Your task to perform on an android device: remove spam from my inbox in the gmail app Image 0: 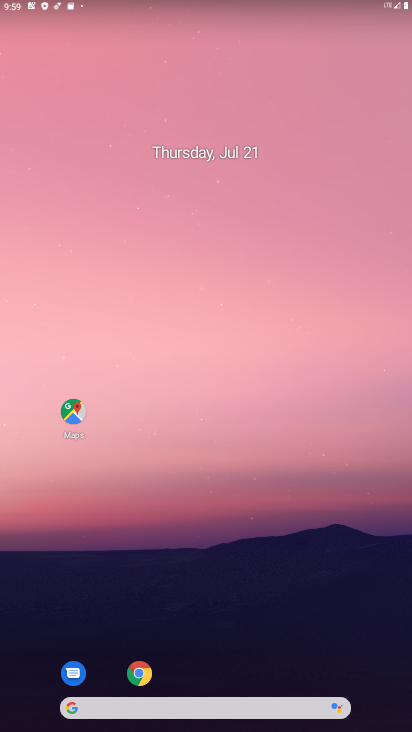
Step 0: drag from (209, 658) to (218, 209)
Your task to perform on an android device: remove spam from my inbox in the gmail app Image 1: 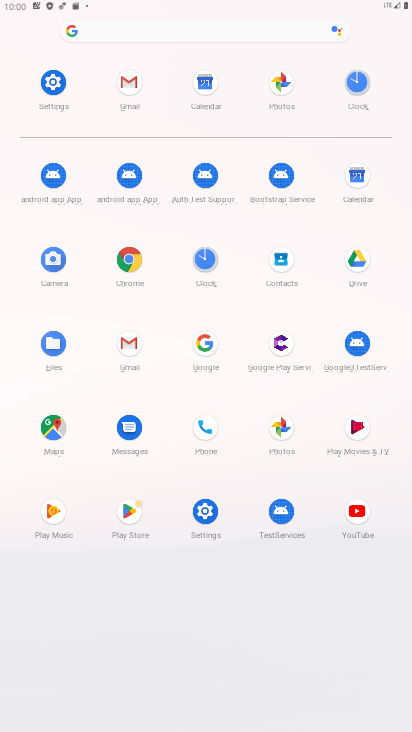
Step 1: click (123, 105)
Your task to perform on an android device: remove spam from my inbox in the gmail app Image 2: 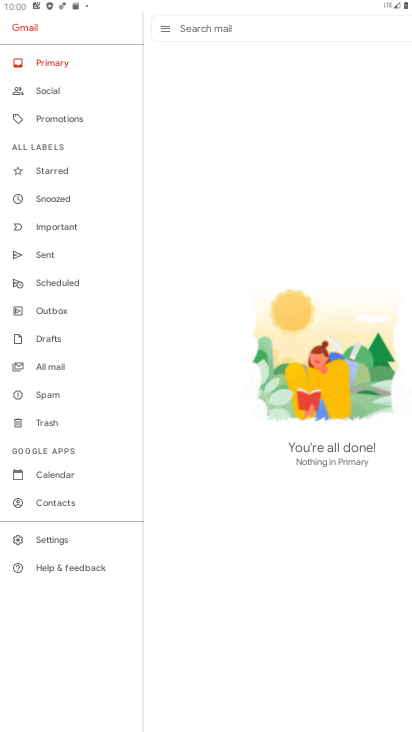
Step 2: click (67, 394)
Your task to perform on an android device: remove spam from my inbox in the gmail app Image 3: 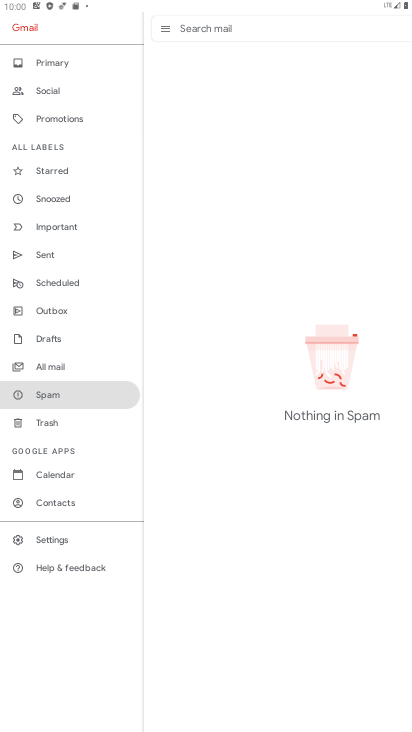
Step 3: task complete